Your task to perform on an android device: Search for sushi restaurants on Maps Image 0: 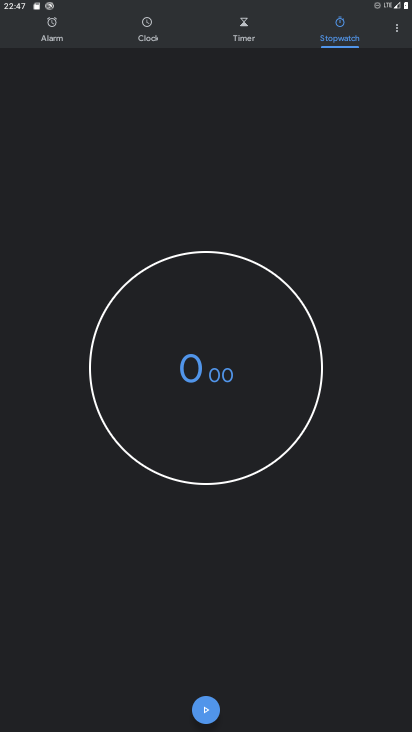
Step 0: press home button
Your task to perform on an android device: Search for sushi restaurants on Maps Image 1: 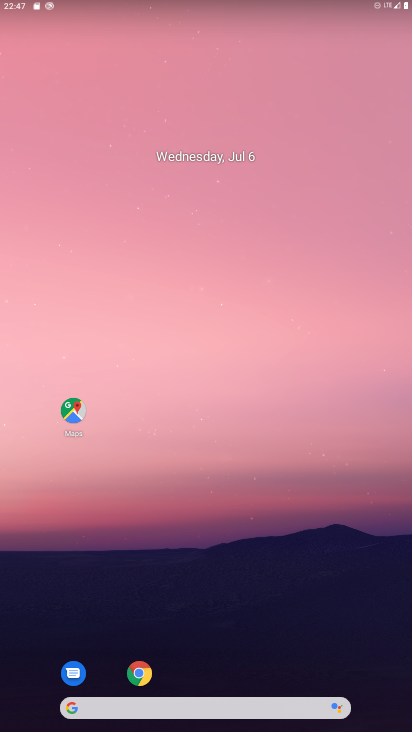
Step 1: click (75, 422)
Your task to perform on an android device: Search for sushi restaurants on Maps Image 2: 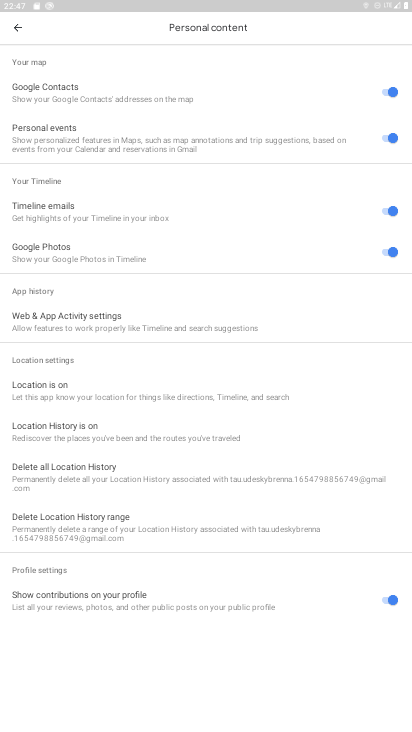
Step 2: click (19, 26)
Your task to perform on an android device: Search for sushi restaurants on Maps Image 3: 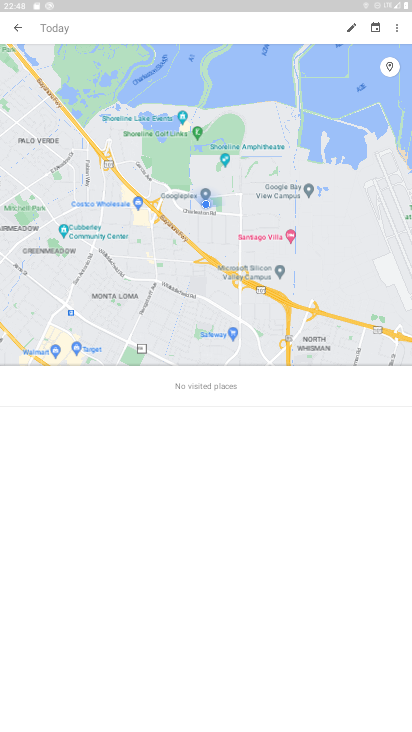
Step 3: click (15, 26)
Your task to perform on an android device: Search for sushi restaurants on Maps Image 4: 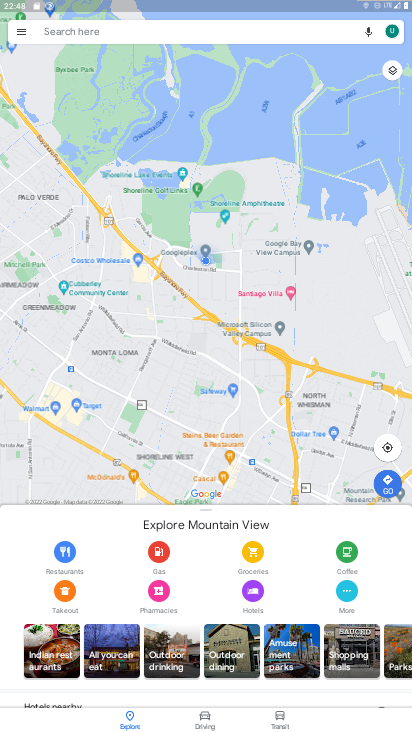
Step 4: click (113, 31)
Your task to perform on an android device: Search for sushi restaurants on Maps Image 5: 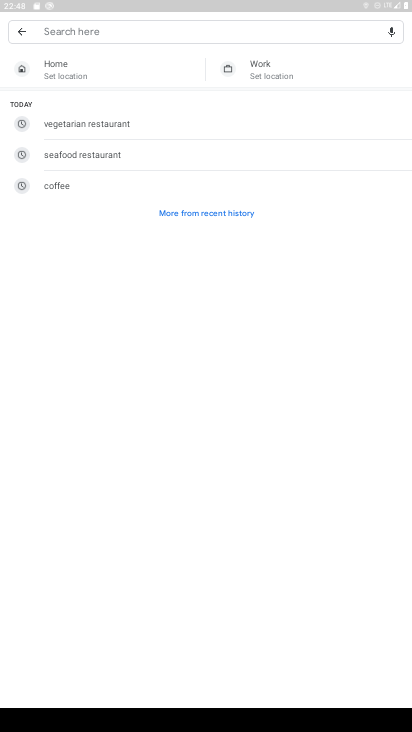
Step 5: click (198, 211)
Your task to perform on an android device: Search for sushi restaurants on Maps Image 6: 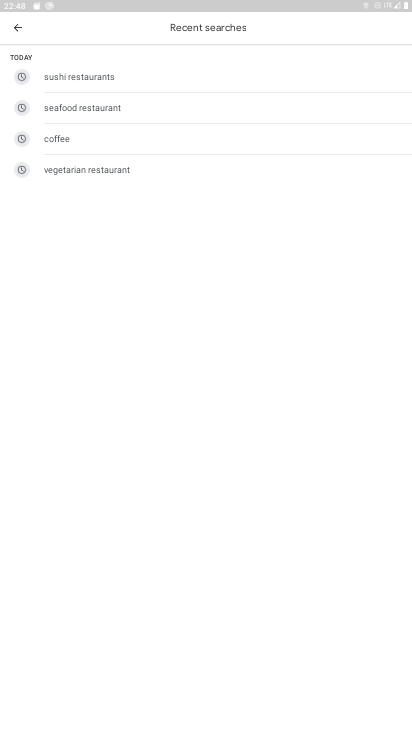
Step 6: click (82, 73)
Your task to perform on an android device: Search for sushi restaurants on Maps Image 7: 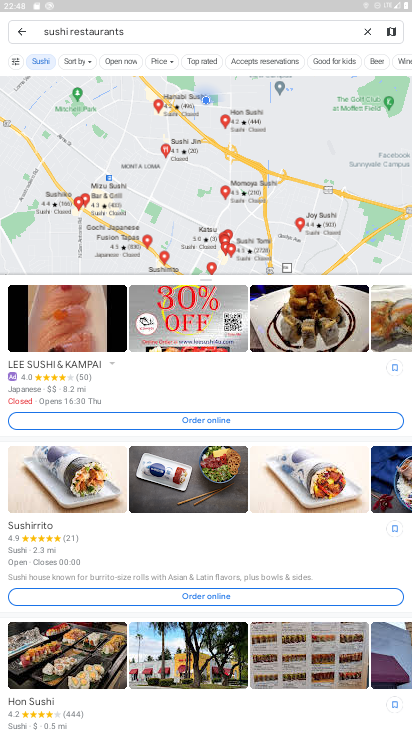
Step 7: task complete